Your task to perform on an android device: open sync settings in chrome Image 0: 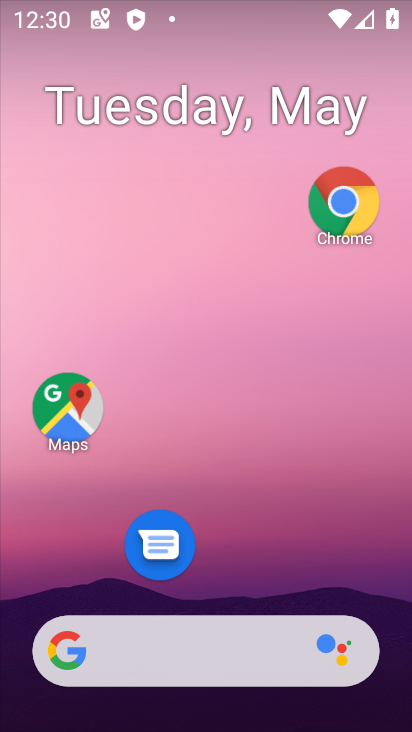
Step 0: click (362, 183)
Your task to perform on an android device: open sync settings in chrome Image 1: 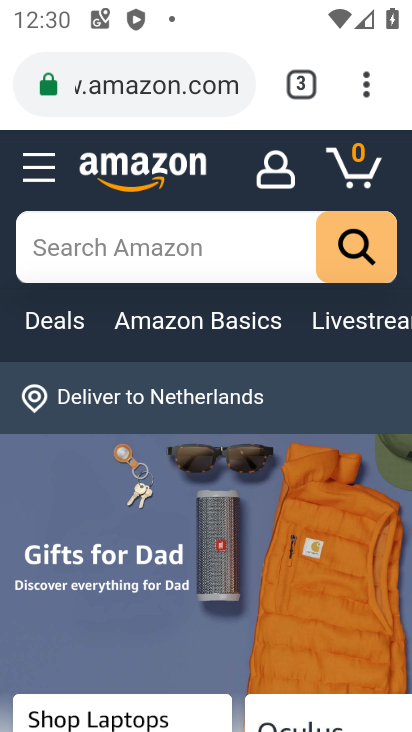
Step 1: click (377, 91)
Your task to perform on an android device: open sync settings in chrome Image 2: 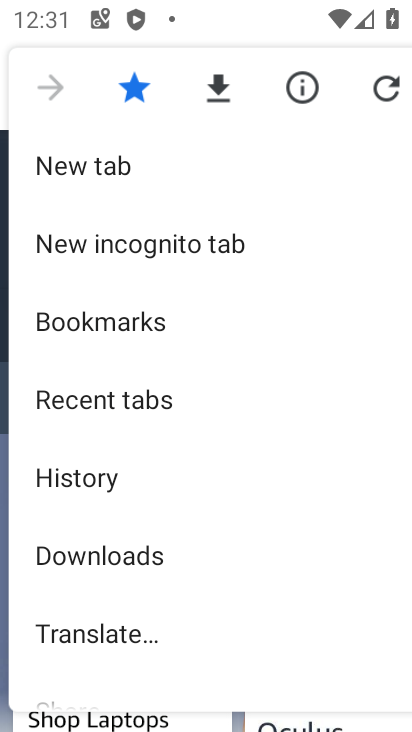
Step 2: drag from (184, 598) to (252, 206)
Your task to perform on an android device: open sync settings in chrome Image 3: 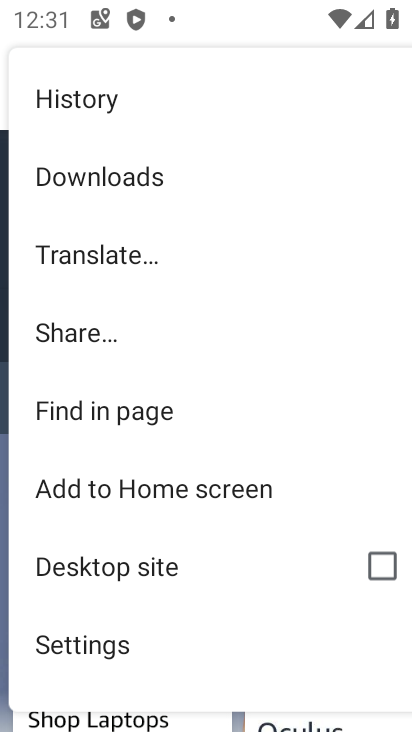
Step 3: drag from (169, 672) to (217, 277)
Your task to perform on an android device: open sync settings in chrome Image 4: 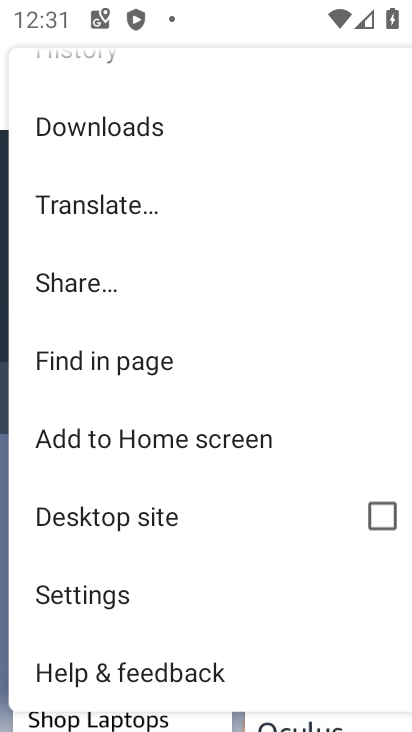
Step 4: click (176, 610)
Your task to perform on an android device: open sync settings in chrome Image 5: 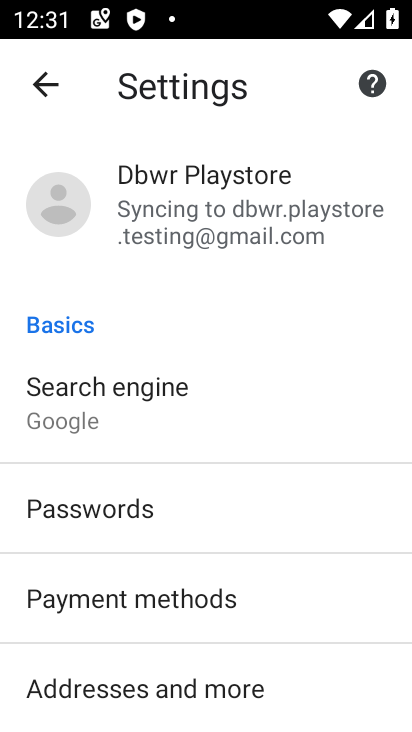
Step 5: click (236, 229)
Your task to perform on an android device: open sync settings in chrome Image 6: 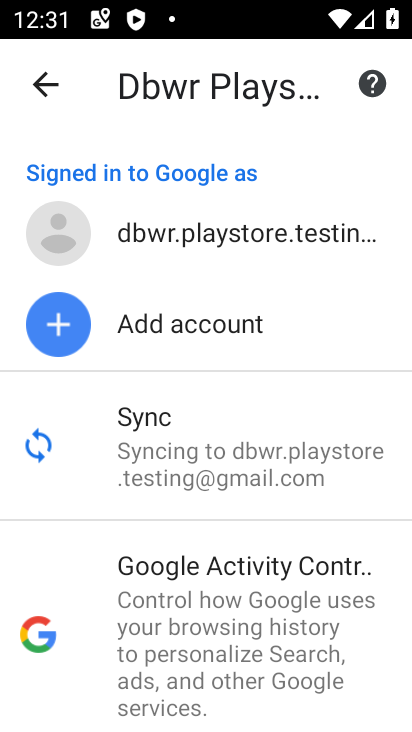
Step 6: click (119, 431)
Your task to perform on an android device: open sync settings in chrome Image 7: 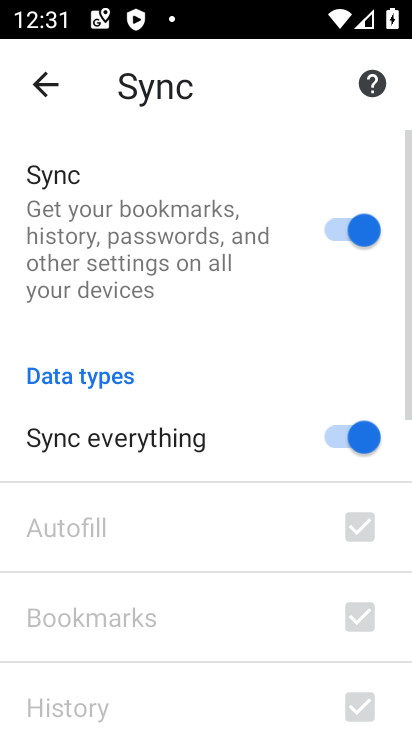
Step 7: task complete